Your task to perform on an android device: change the clock style Image 0: 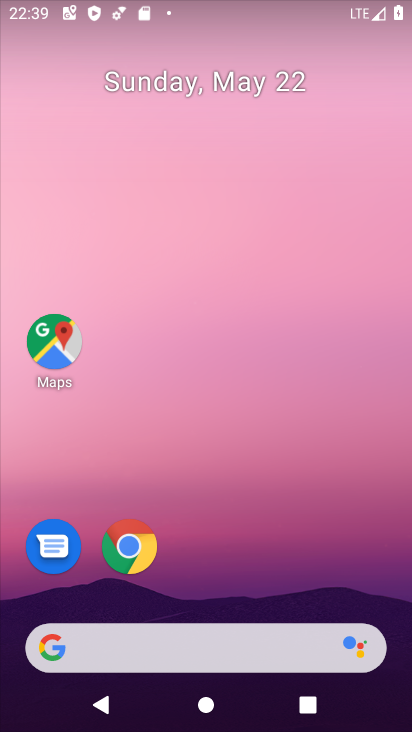
Step 0: drag from (214, 562) to (311, 114)
Your task to perform on an android device: change the clock style Image 1: 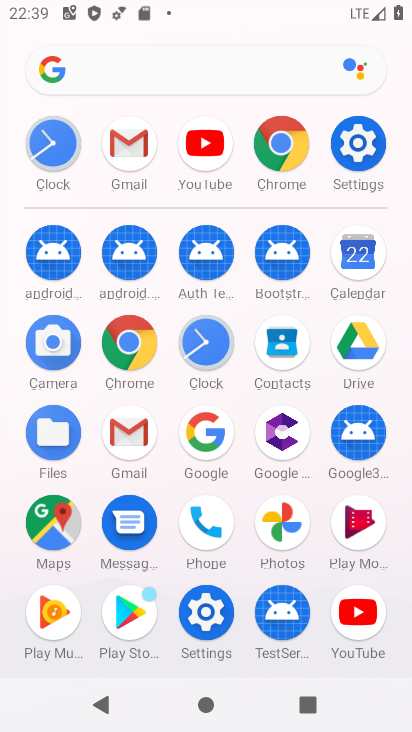
Step 1: click (190, 335)
Your task to perform on an android device: change the clock style Image 2: 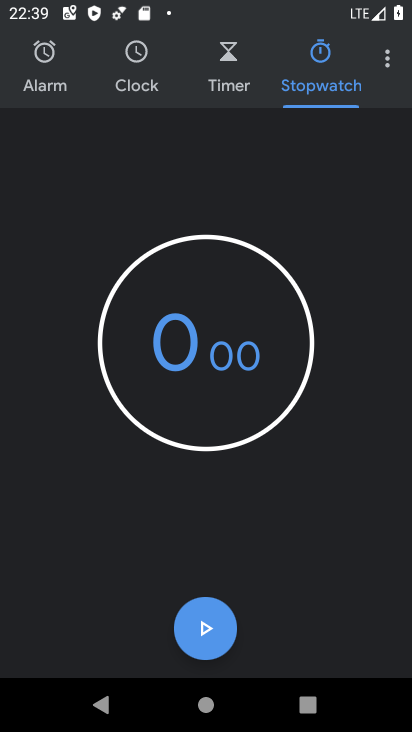
Step 2: click (382, 64)
Your task to perform on an android device: change the clock style Image 3: 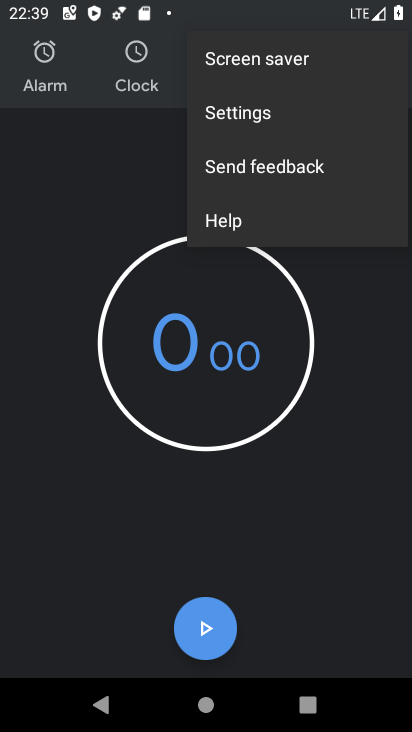
Step 3: click (225, 124)
Your task to perform on an android device: change the clock style Image 4: 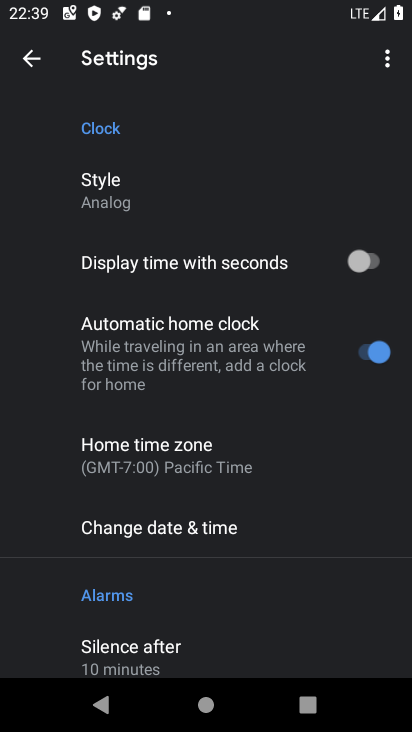
Step 4: click (136, 202)
Your task to perform on an android device: change the clock style Image 5: 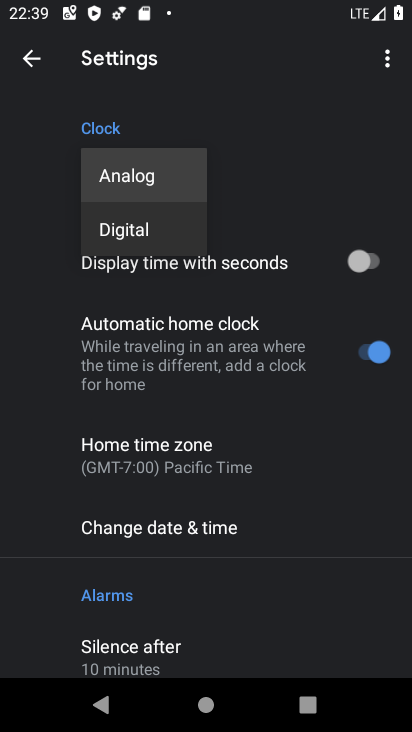
Step 5: click (148, 228)
Your task to perform on an android device: change the clock style Image 6: 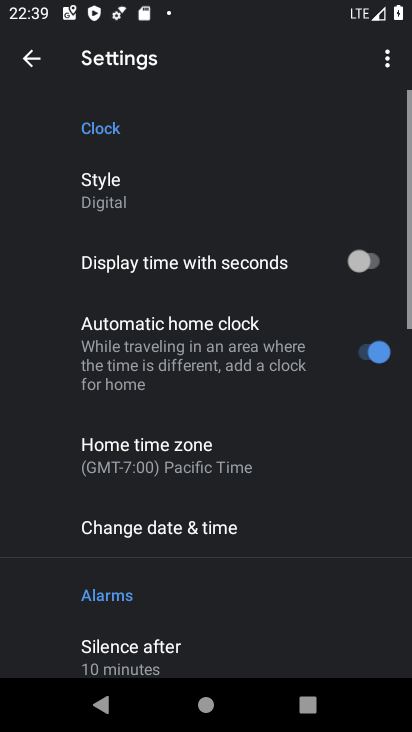
Step 6: task complete